Your task to perform on an android device: Open ESPN.com Image 0: 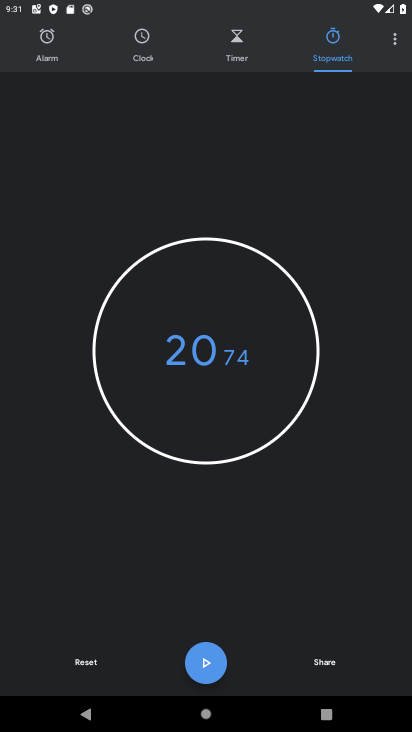
Step 0: press home button
Your task to perform on an android device: Open ESPN.com Image 1: 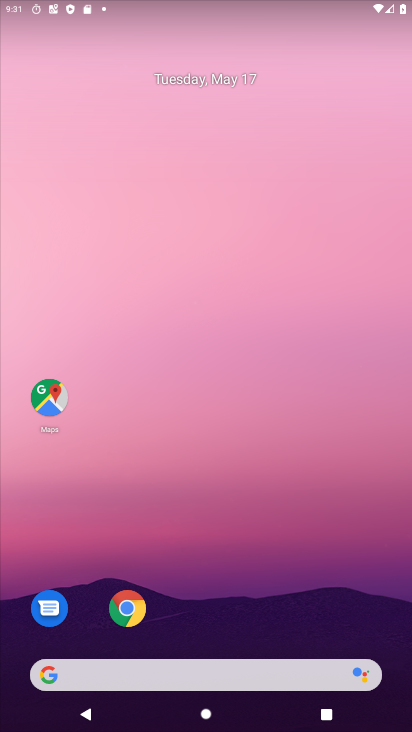
Step 1: drag from (368, 610) to (348, 87)
Your task to perform on an android device: Open ESPN.com Image 2: 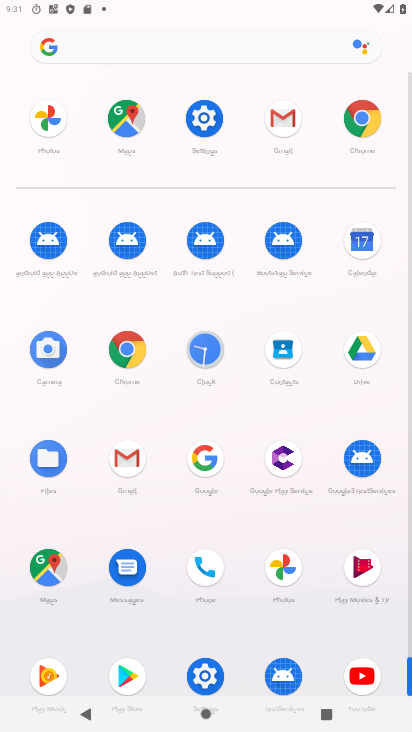
Step 2: click (371, 130)
Your task to perform on an android device: Open ESPN.com Image 3: 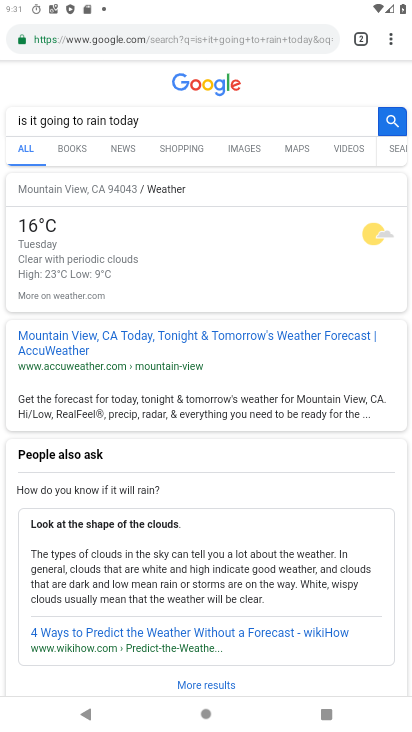
Step 3: click (120, 38)
Your task to perform on an android device: Open ESPN.com Image 4: 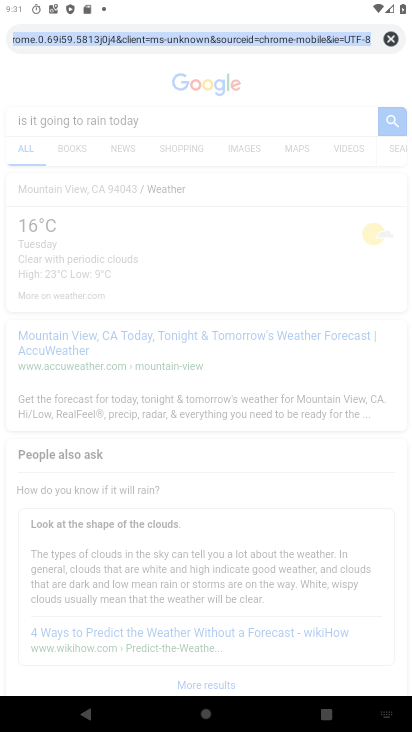
Step 4: click (394, 40)
Your task to perform on an android device: Open ESPN.com Image 5: 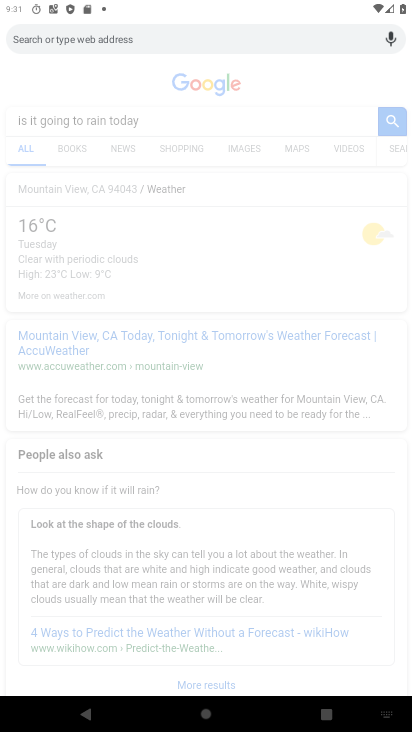
Step 5: type "espn.com"
Your task to perform on an android device: Open ESPN.com Image 6: 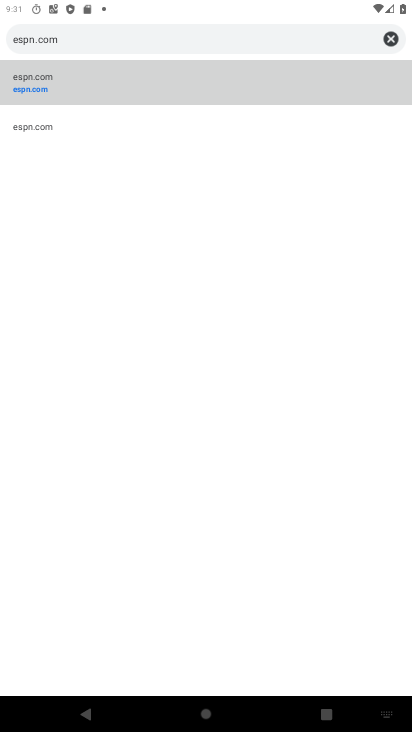
Step 6: click (20, 84)
Your task to perform on an android device: Open ESPN.com Image 7: 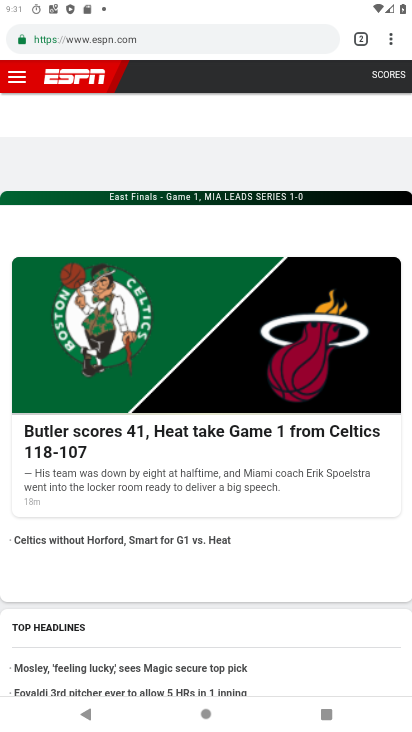
Step 7: task complete